Your task to perform on an android device: install app "Expedia: Hotels, Flights & Car" Image 0: 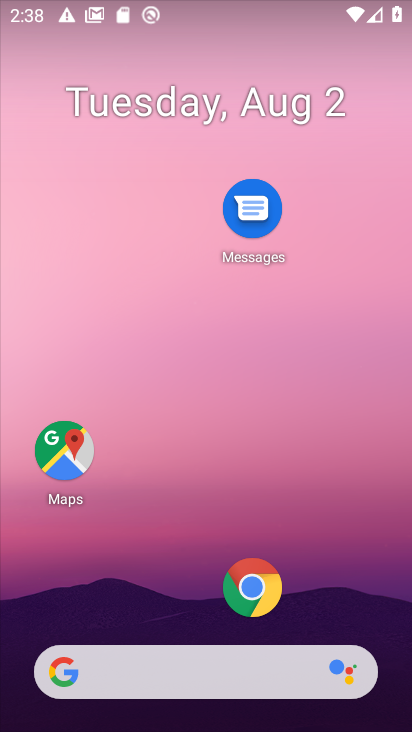
Step 0: drag from (169, 586) to (171, 115)
Your task to perform on an android device: install app "Expedia: Hotels, Flights & Car" Image 1: 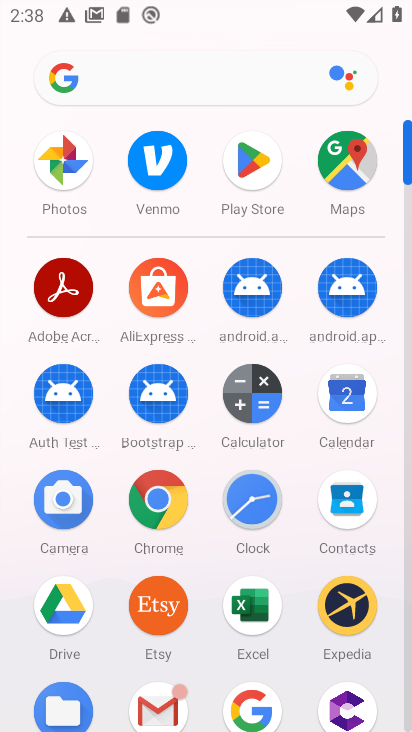
Step 1: click (240, 192)
Your task to perform on an android device: install app "Expedia: Hotels, Flights & Car" Image 2: 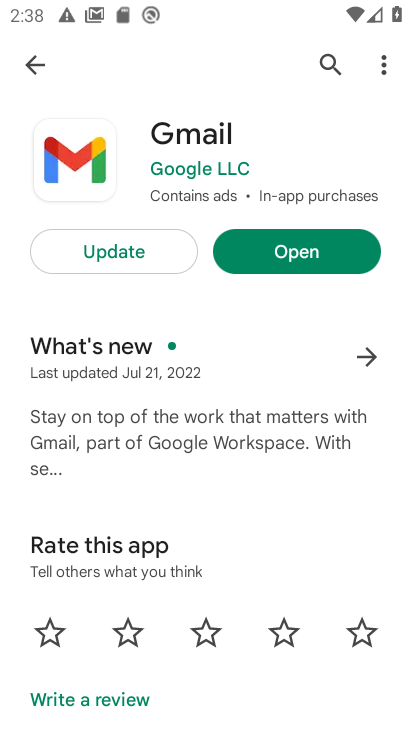
Step 2: click (322, 59)
Your task to perform on an android device: install app "Expedia: Hotels, Flights & Car" Image 3: 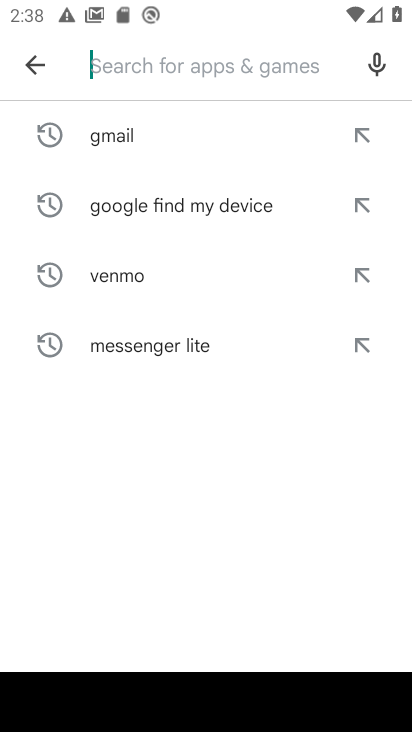
Step 3: type "Expedia: Hotels, Flights & Car"
Your task to perform on an android device: install app "Expedia: Hotels, Flights & Car" Image 4: 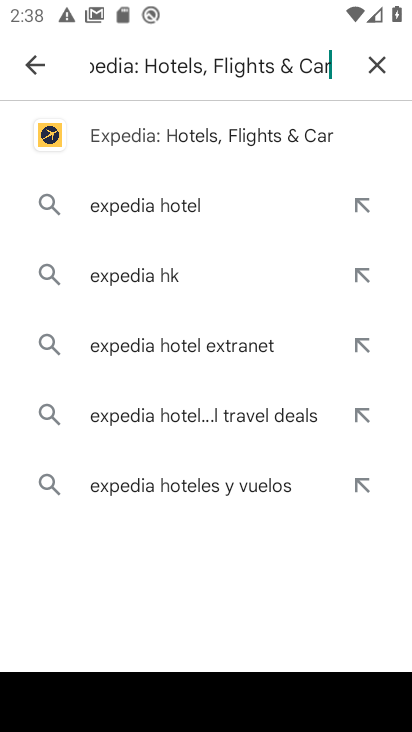
Step 4: type ""
Your task to perform on an android device: install app "Expedia: Hotels, Flights & Car" Image 5: 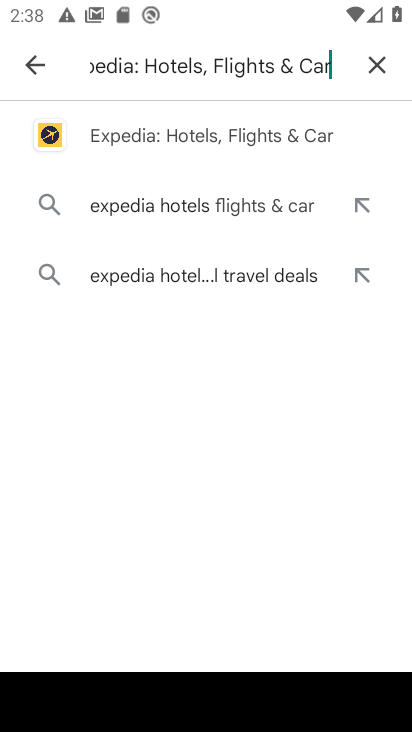
Step 5: click (242, 132)
Your task to perform on an android device: install app "Expedia: Hotels, Flights & Car" Image 6: 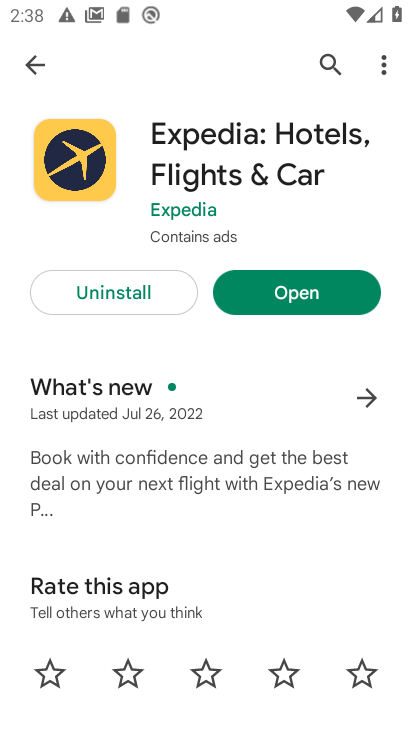
Step 6: task complete